Your task to perform on an android device: Open display settings Image 0: 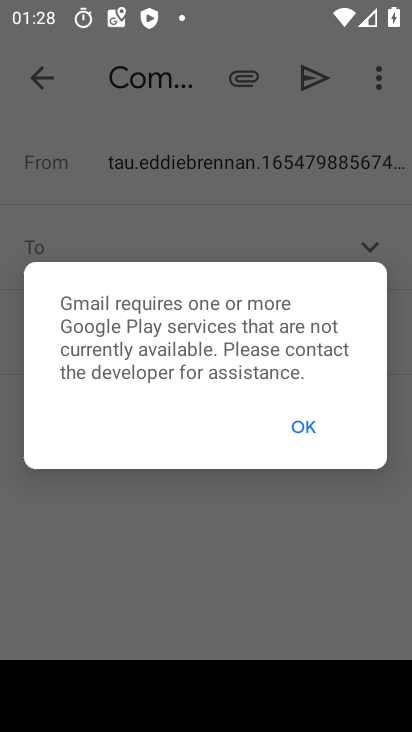
Step 0: press back button
Your task to perform on an android device: Open display settings Image 1: 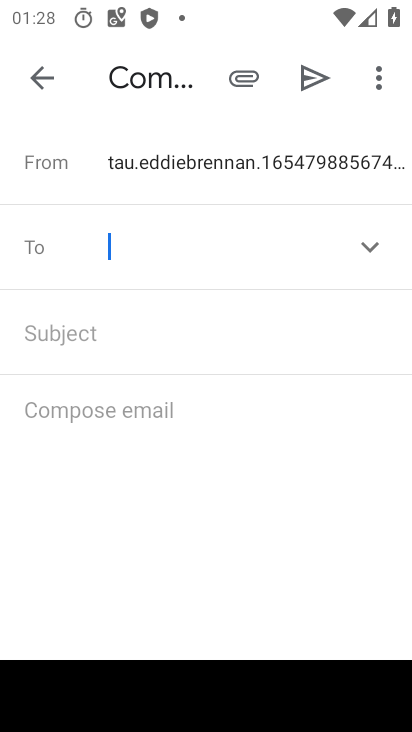
Step 1: press back button
Your task to perform on an android device: Open display settings Image 2: 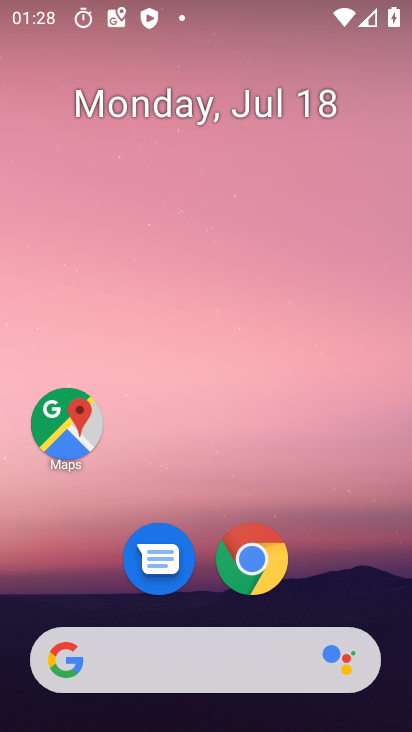
Step 2: drag from (88, 588) to (210, 14)
Your task to perform on an android device: Open display settings Image 3: 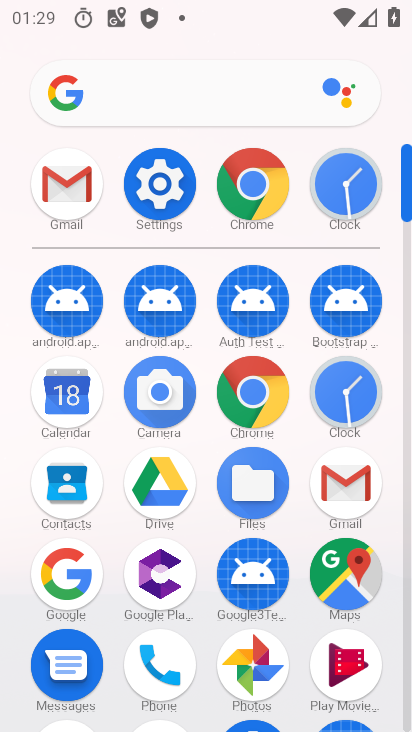
Step 3: click (149, 179)
Your task to perform on an android device: Open display settings Image 4: 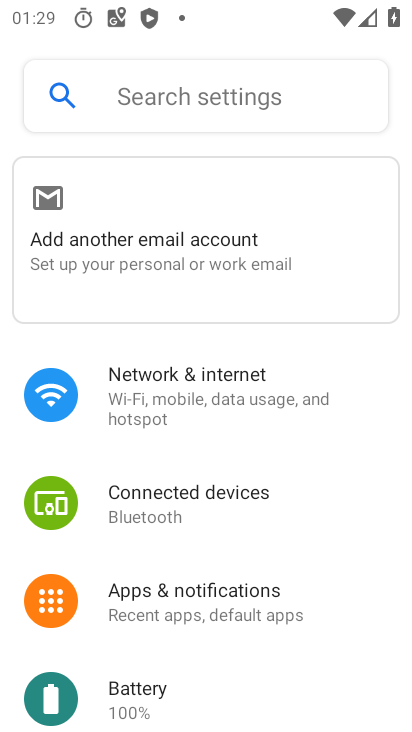
Step 4: drag from (222, 636) to (300, 66)
Your task to perform on an android device: Open display settings Image 5: 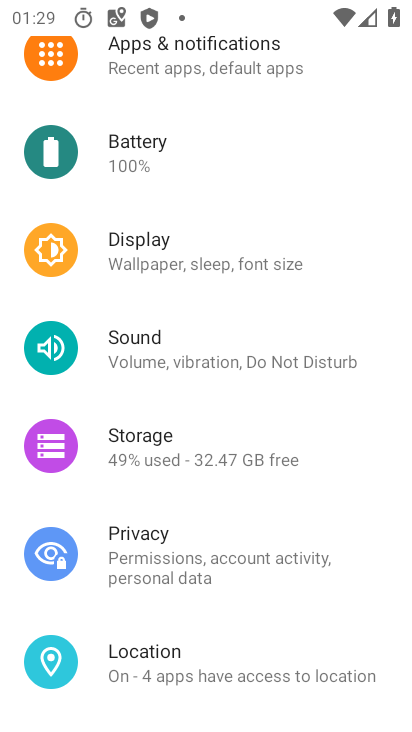
Step 5: click (145, 250)
Your task to perform on an android device: Open display settings Image 6: 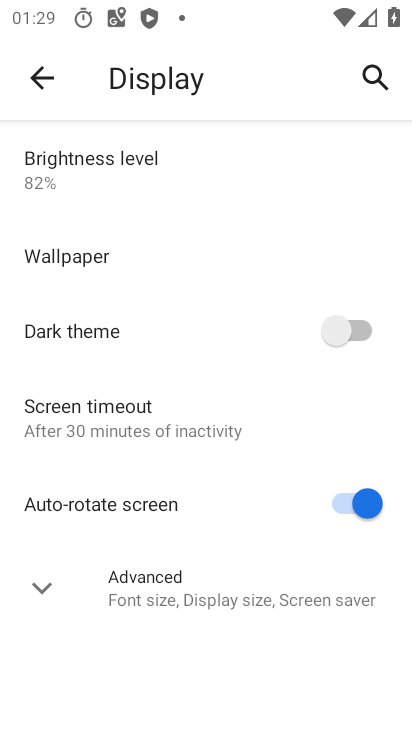
Step 6: task complete